Your task to perform on an android device: open app "Facebook Lite" Image 0: 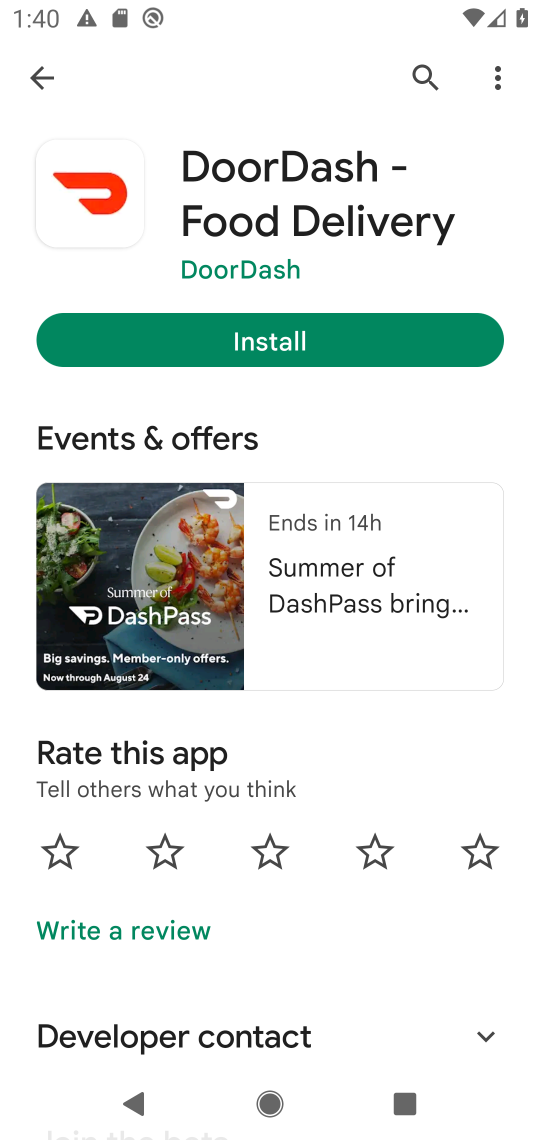
Step 0: press back button
Your task to perform on an android device: open app "Facebook Lite" Image 1: 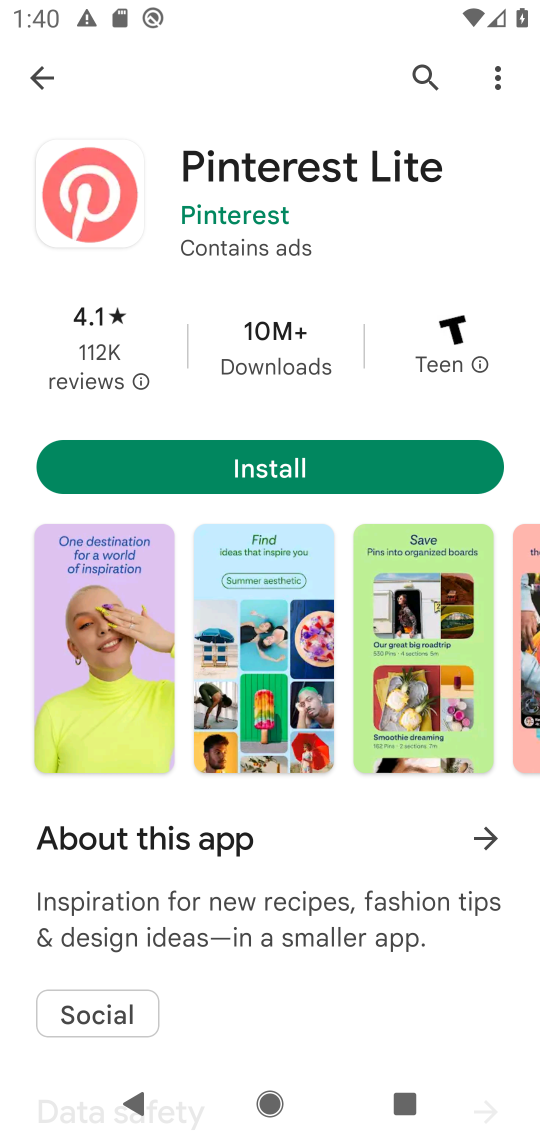
Step 1: press back button
Your task to perform on an android device: open app "Facebook Lite" Image 2: 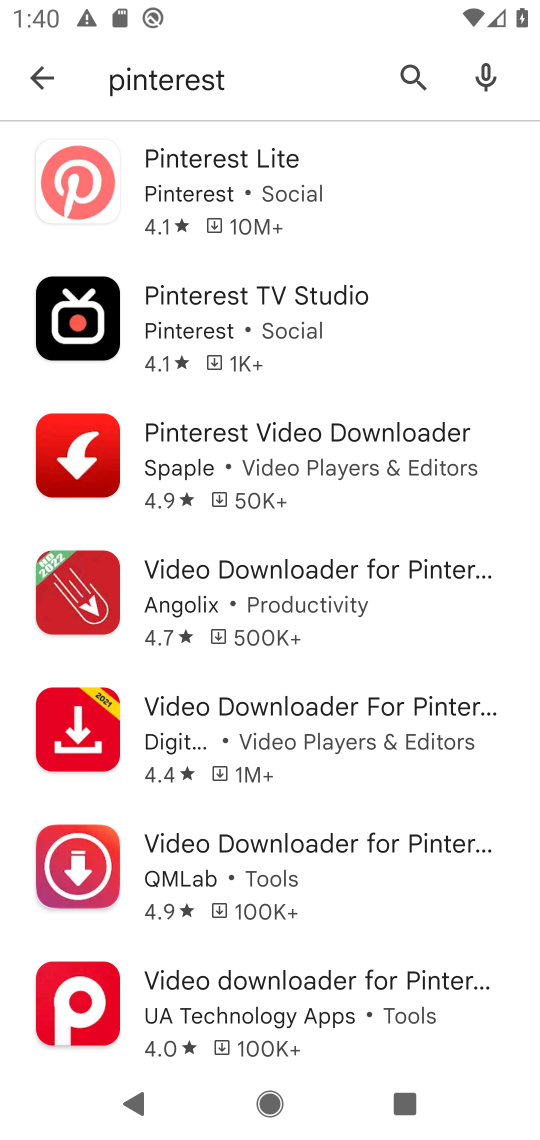
Step 2: press back button
Your task to perform on an android device: open app "Facebook Lite" Image 3: 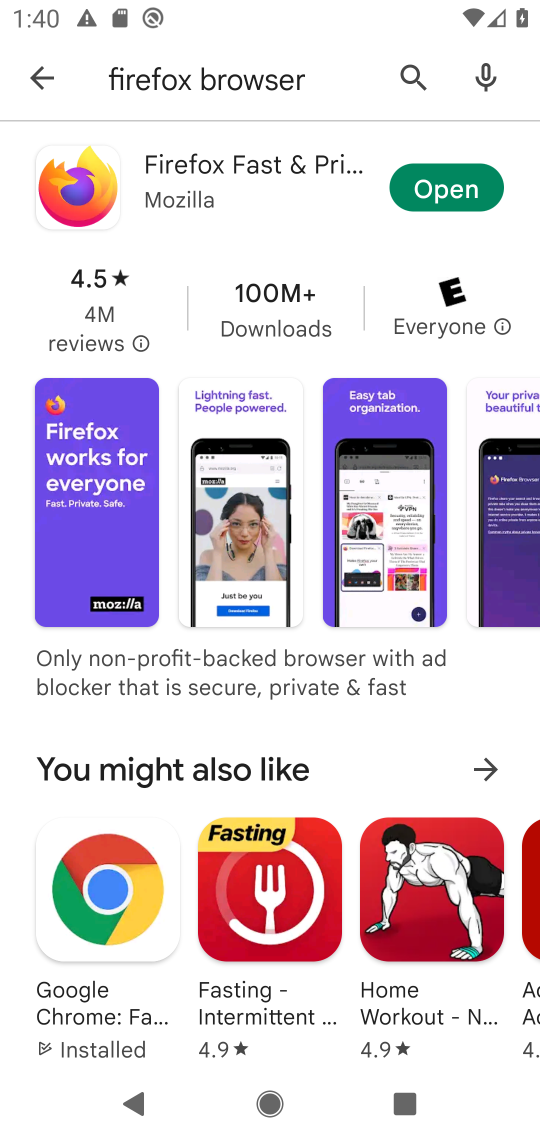
Step 3: press back button
Your task to perform on an android device: open app "Facebook Lite" Image 4: 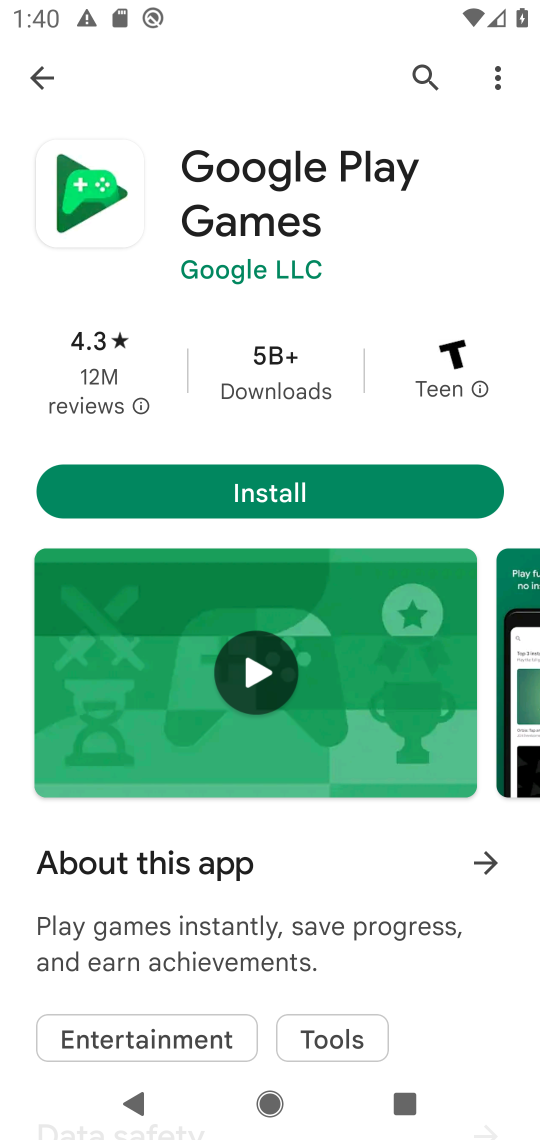
Step 4: click (420, 72)
Your task to perform on an android device: open app "Facebook Lite" Image 5: 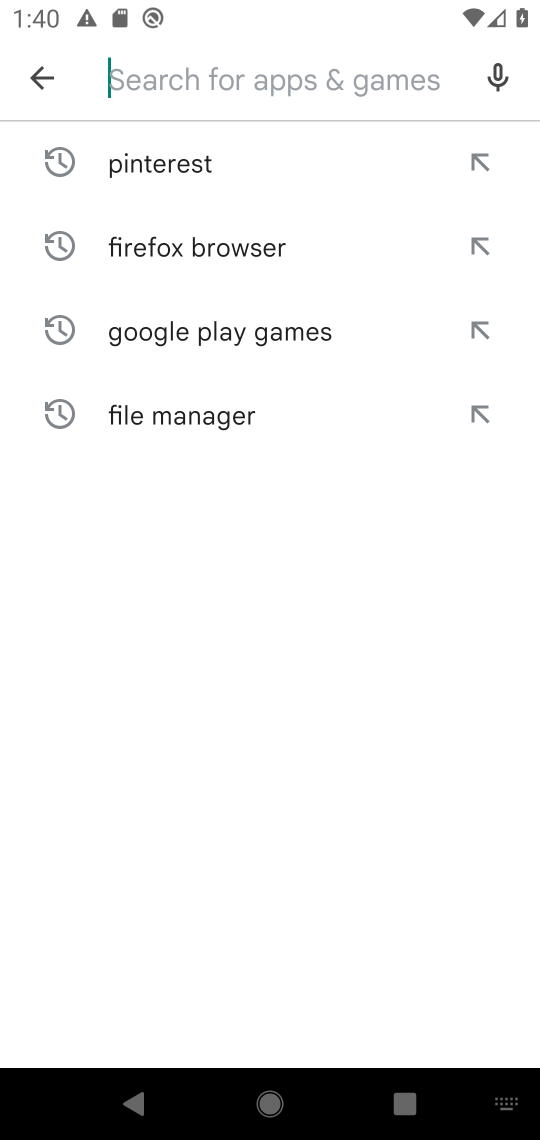
Step 5: click (178, 73)
Your task to perform on an android device: open app "Facebook Lite" Image 6: 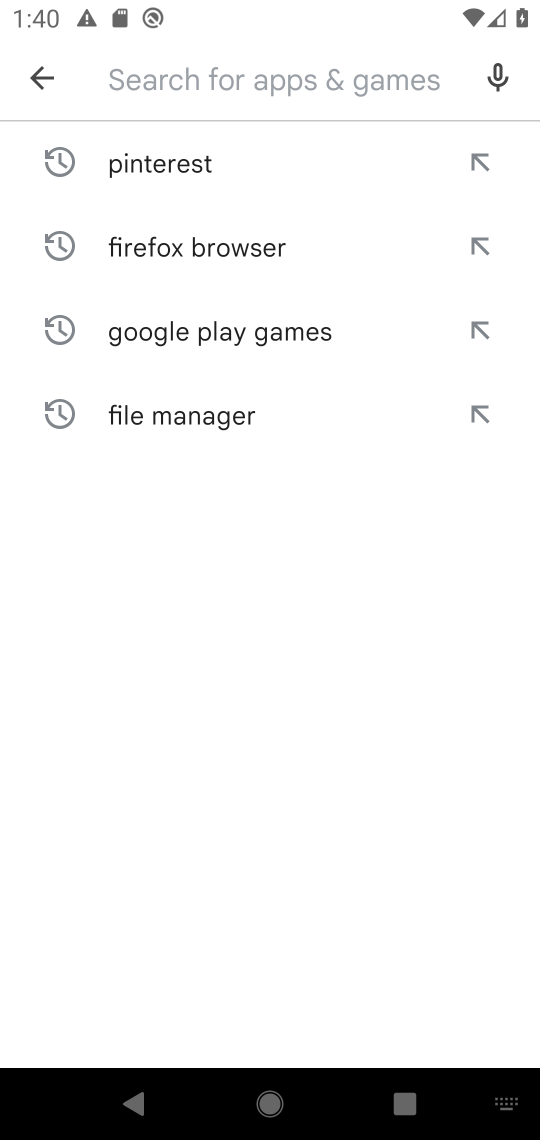
Step 6: type "Facebook Lite"
Your task to perform on an android device: open app "Facebook Lite" Image 7: 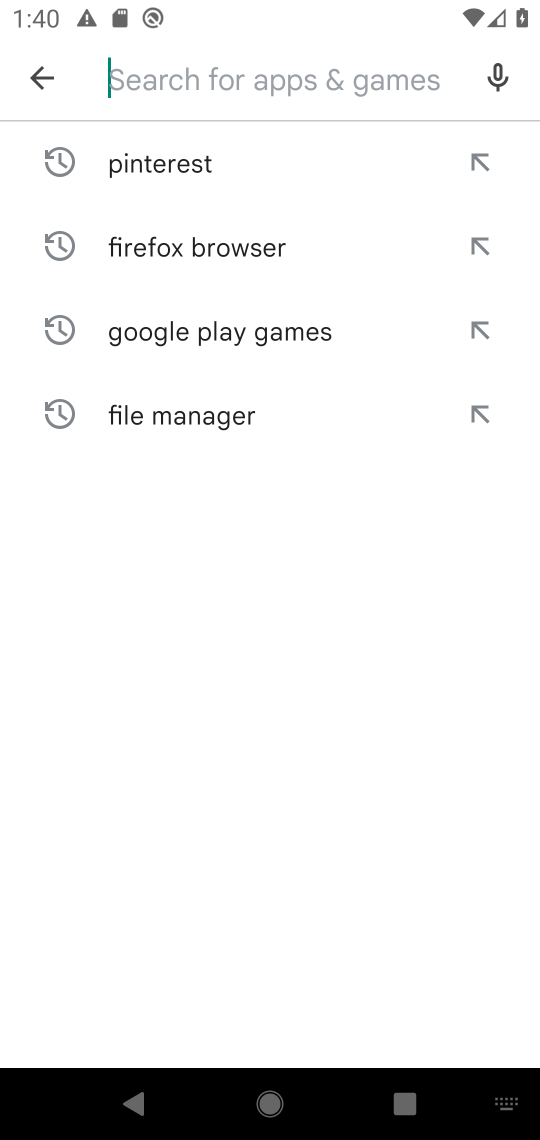
Step 7: click (249, 705)
Your task to perform on an android device: open app "Facebook Lite" Image 8: 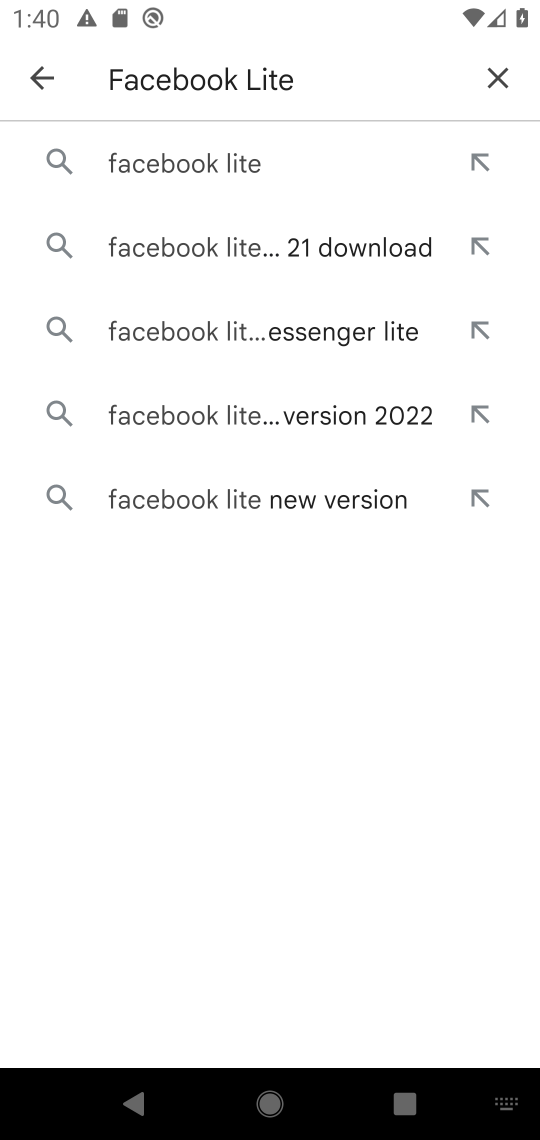
Step 8: click (189, 166)
Your task to perform on an android device: open app "Facebook Lite" Image 9: 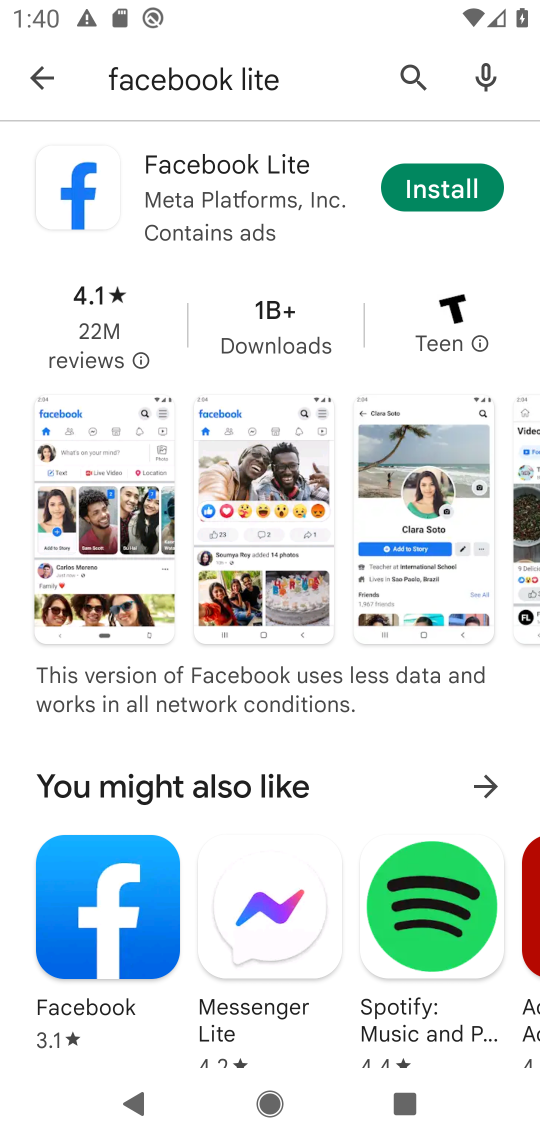
Step 9: task complete